Your task to perform on an android device: Open Amazon Image 0: 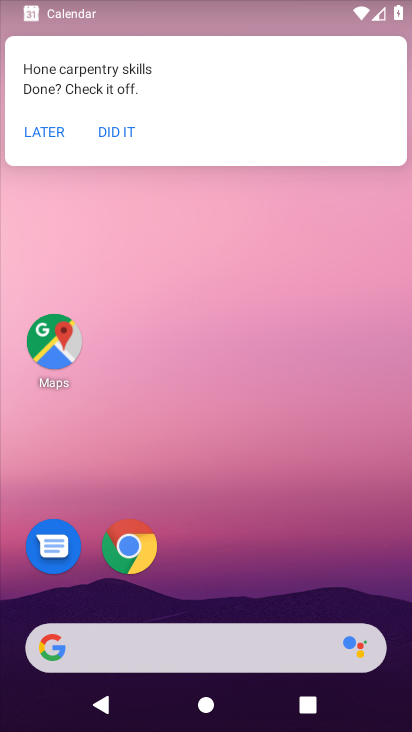
Step 0: click (137, 542)
Your task to perform on an android device: Open Amazon Image 1: 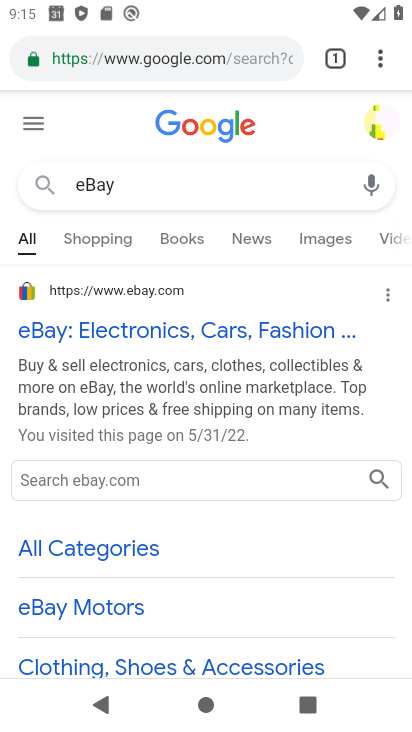
Step 1: click (179, 51)
Your task to perform on an android device: Open Amazon Image 2: 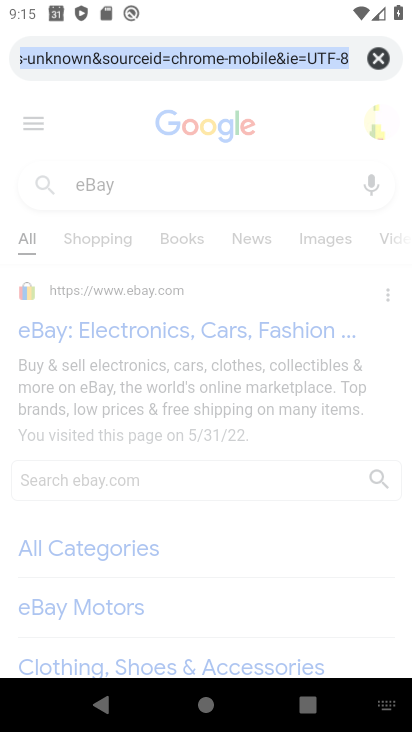
Step 2: type "Amazon"
Your task to perform on an android device: Open Amazon Image 3: 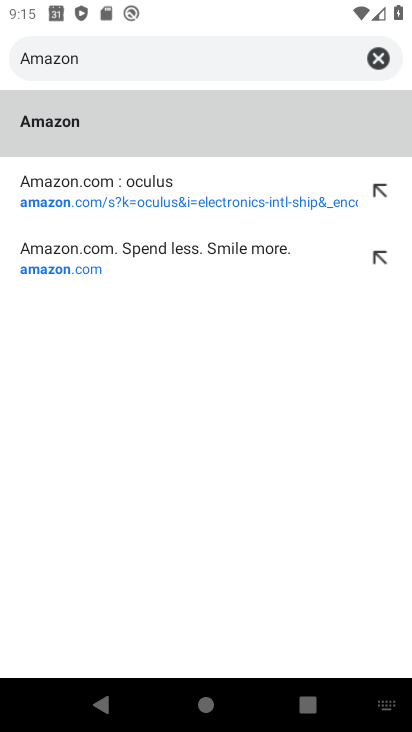
Step 3: click (129, 130)
Your task to perform on an android device: Open Amazon Image 4: 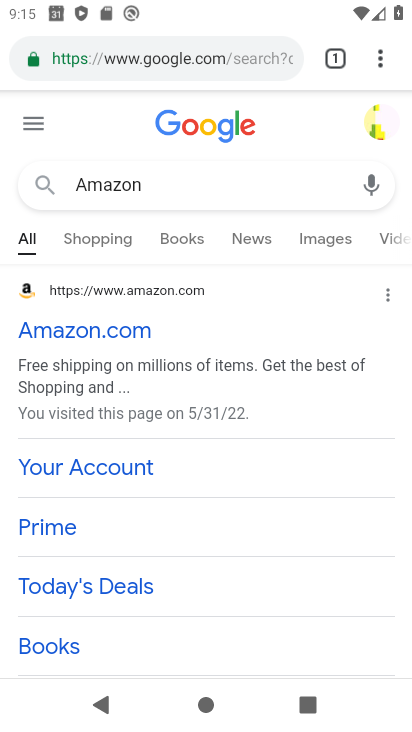
Step 4: task complete